Your task to perform on an android device: turn notification dots on Image 0: 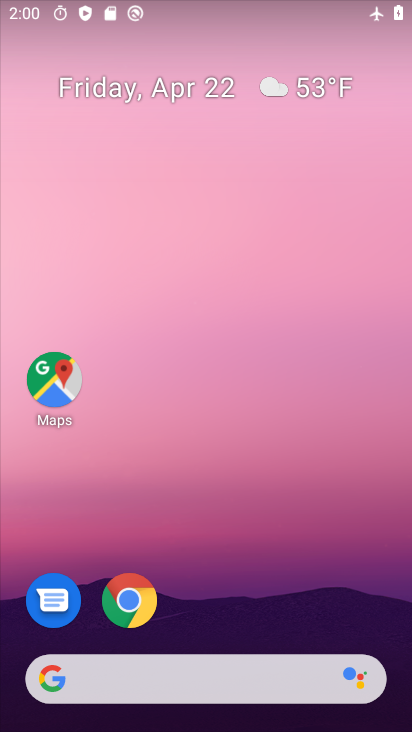
Step 0: drag from (206, 631) to (170, 155)
Your task to perform on an android device: turn notification dots on Image 1: 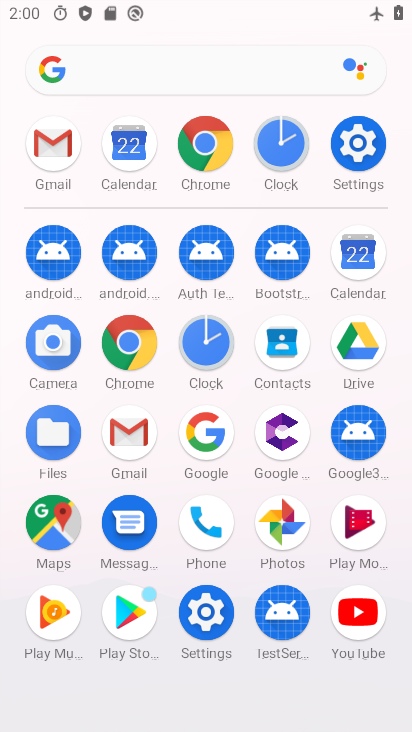
Step 1: click (351, 147)
Your task to perform on an android device: turn notification dots on Image 2: 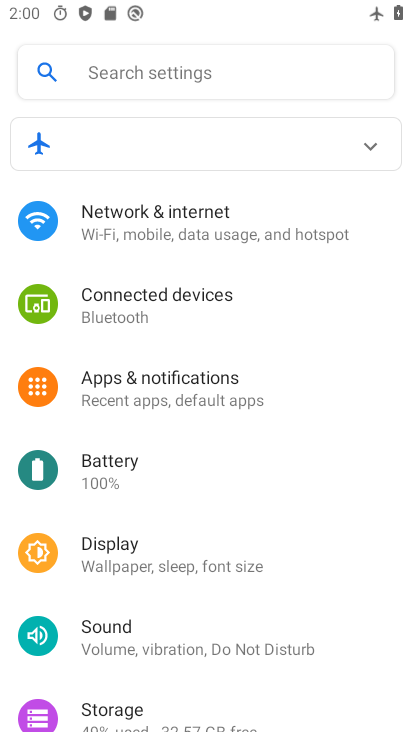
Step 2: click (176, 385)
Your task to perform on an android device: turn notification dots on Image 3: 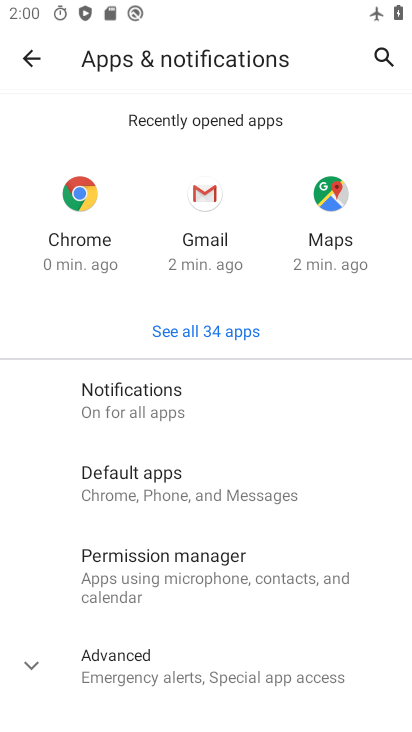
Step 3: click (123, 409)
Your task to perform on an android device: turn notification dots on Image 4: 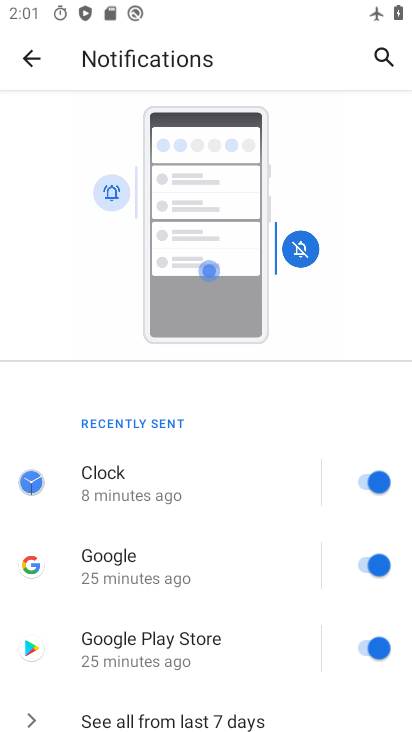
Step 4: drag from (187, 694) to (181, 273)
Your task to perform on an android device: turn notification dots on Image 5: 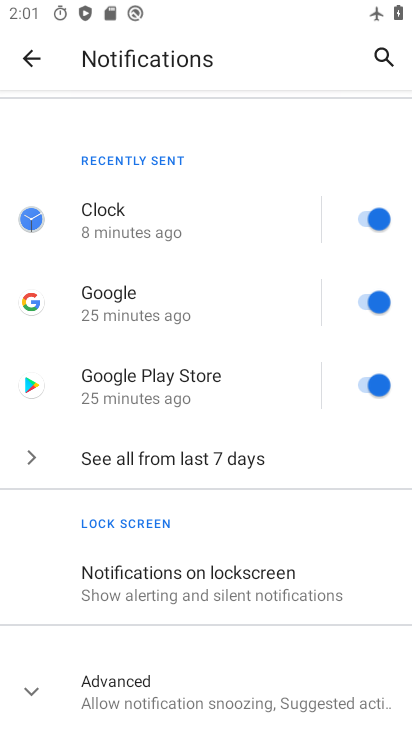
Step 5: click (151, 687)
Your task to perform on an android device: turn notification dots on Image 6: 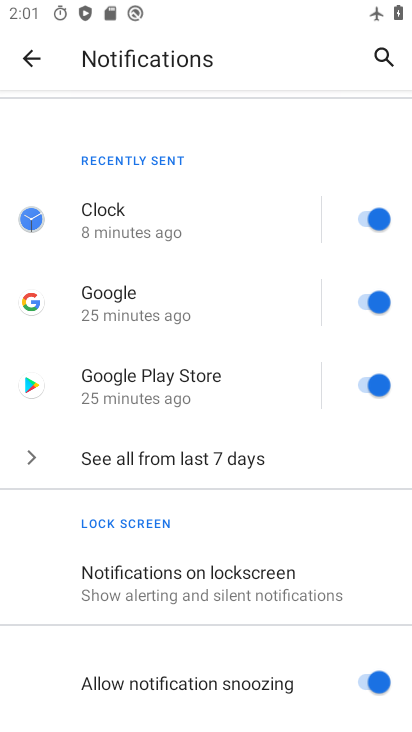
Step 6: task complete